Your task to perform on an android device: set the stopwatch Image 0: 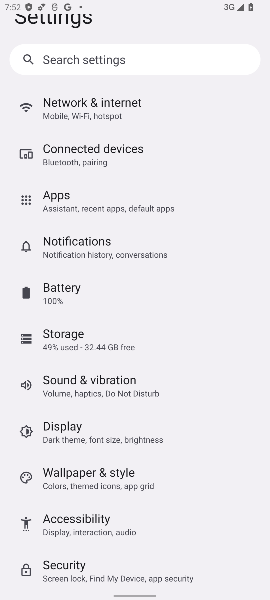
Step 0: press home button
Your task to perform on an android device: set the stopwatch Image 1: 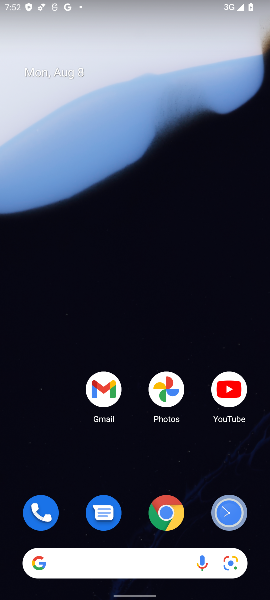
Step 1: click (237, 510)
Your task to perform on an android device: set the stopwatch Image 2: 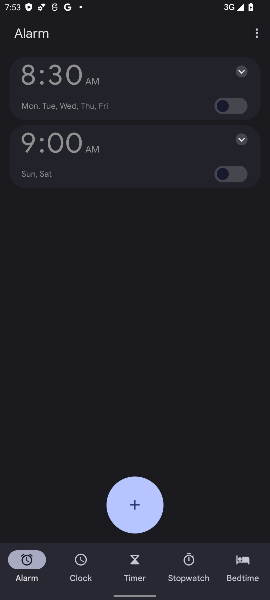
Step 2: click (201, 571)
Your task to perform on an android device: set the stopwatch Image 3: 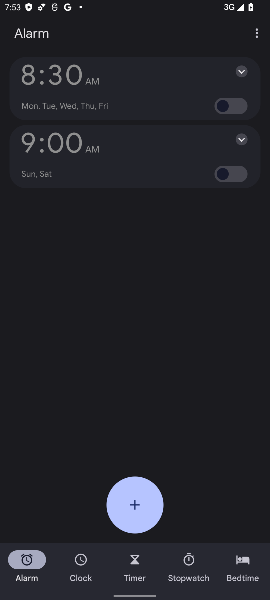
Step 3: click (187, 567)
Your task to perform on an android device: set the stopwatch Image 4: 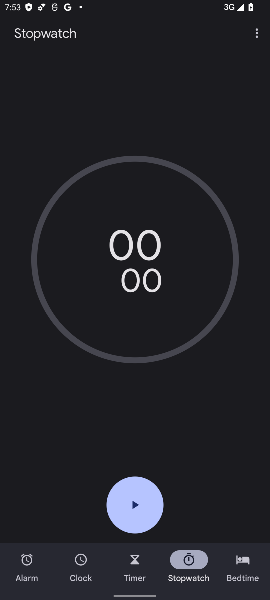
Step 4: task complete